Your task to perform on an android device: Check the news Image 0: 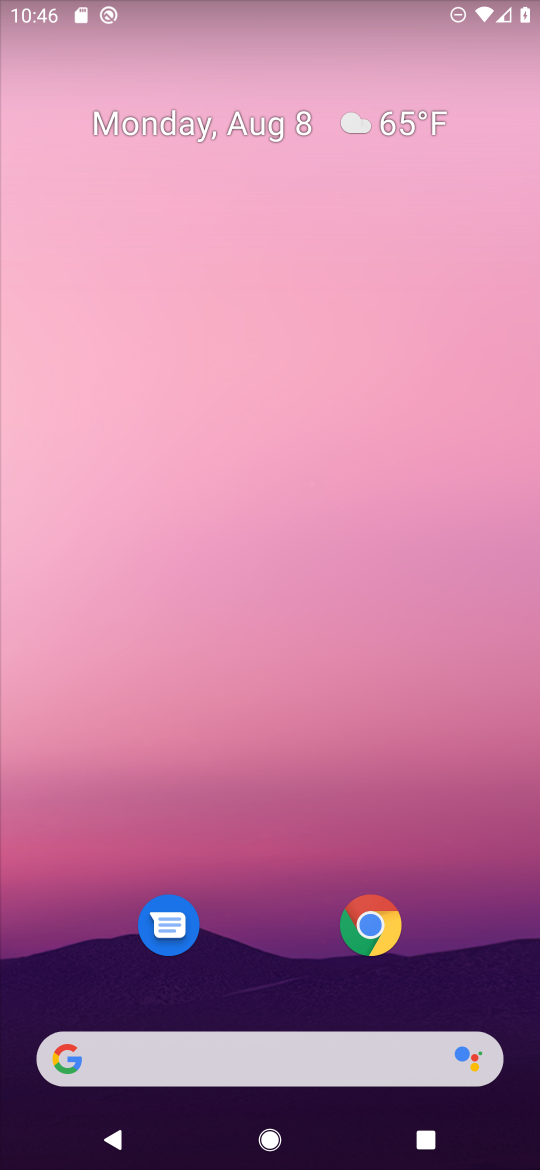
Step 0: drag from (226, 934) to (248, 259)
Your task to perform on an android device: Check the news Image 1: 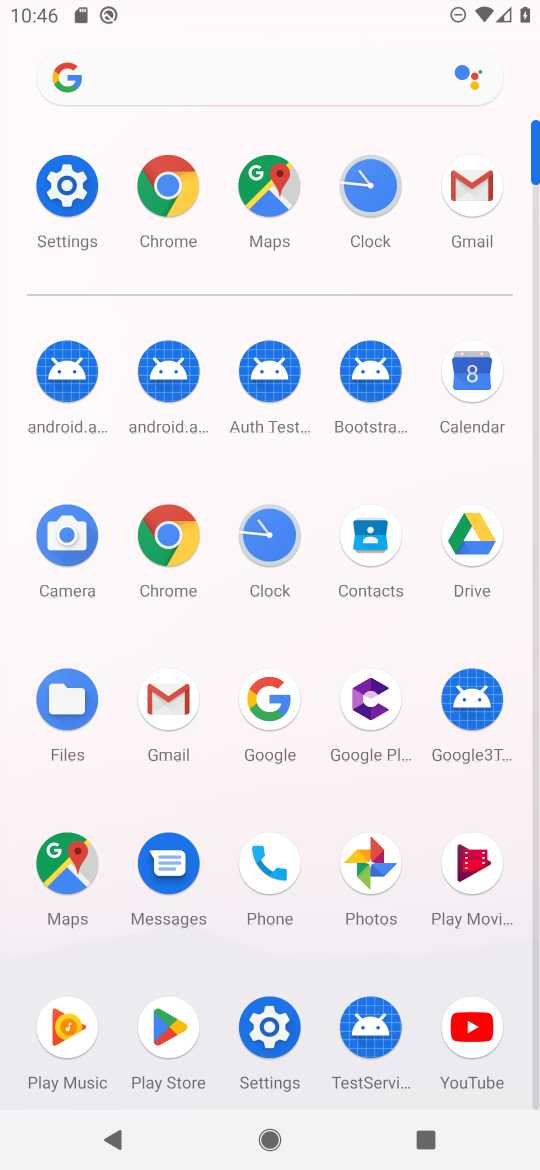
Step 1: click (171, 510)
Your task to perform on an android device: Check the news Image 2: 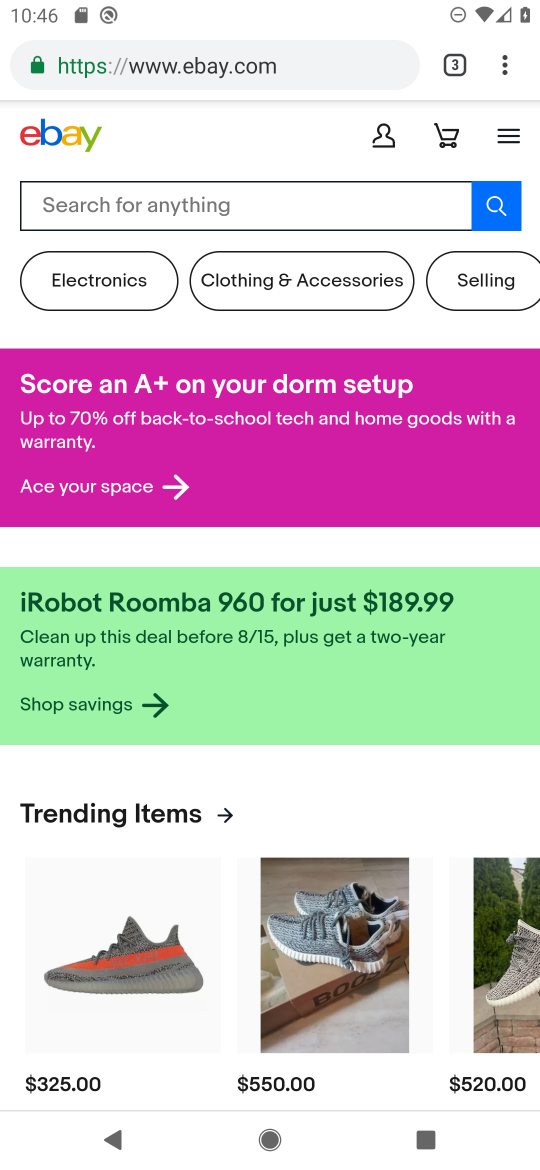
Step 2: click (223, 77)
Your task to perform on an android device: Check the news Image 3: 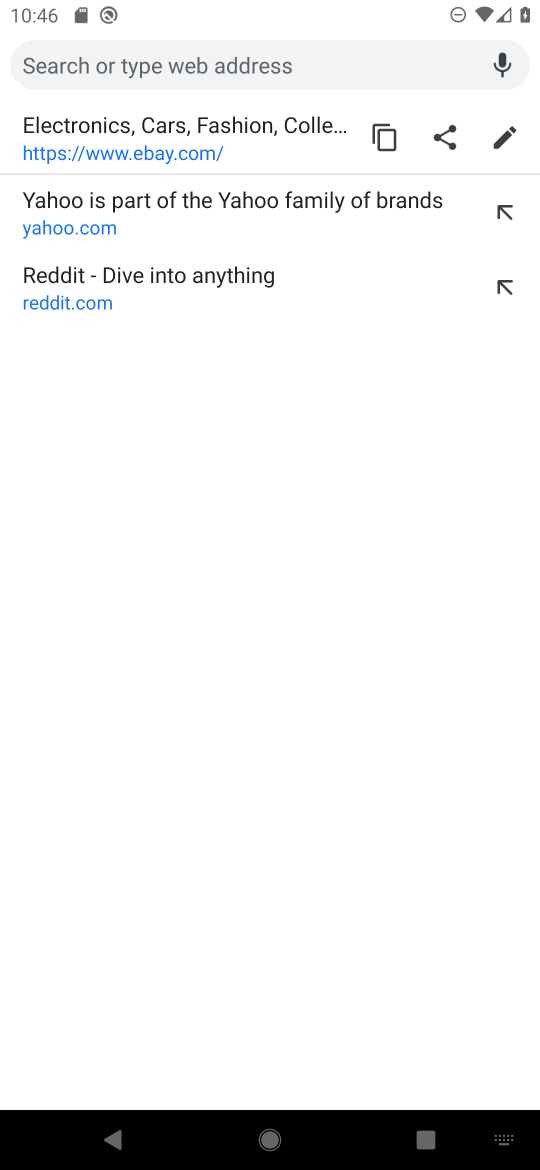
Step 3: type "news"
Your task to perform on an android device: Check the news Image 4: 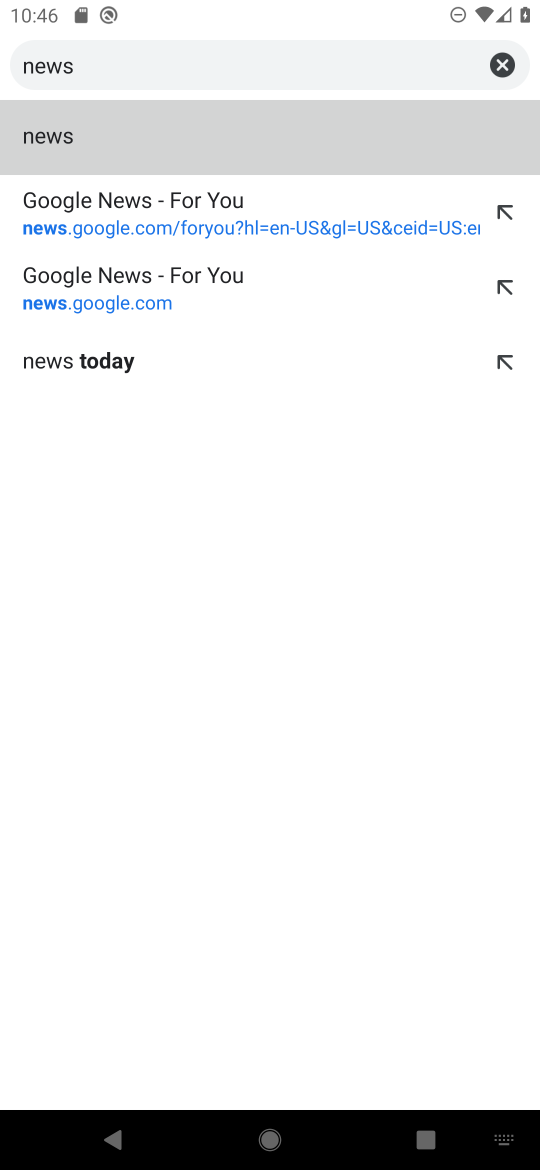
Step 4: click (92, 132)
Your task to perform on an android device: Check the news Image 5: 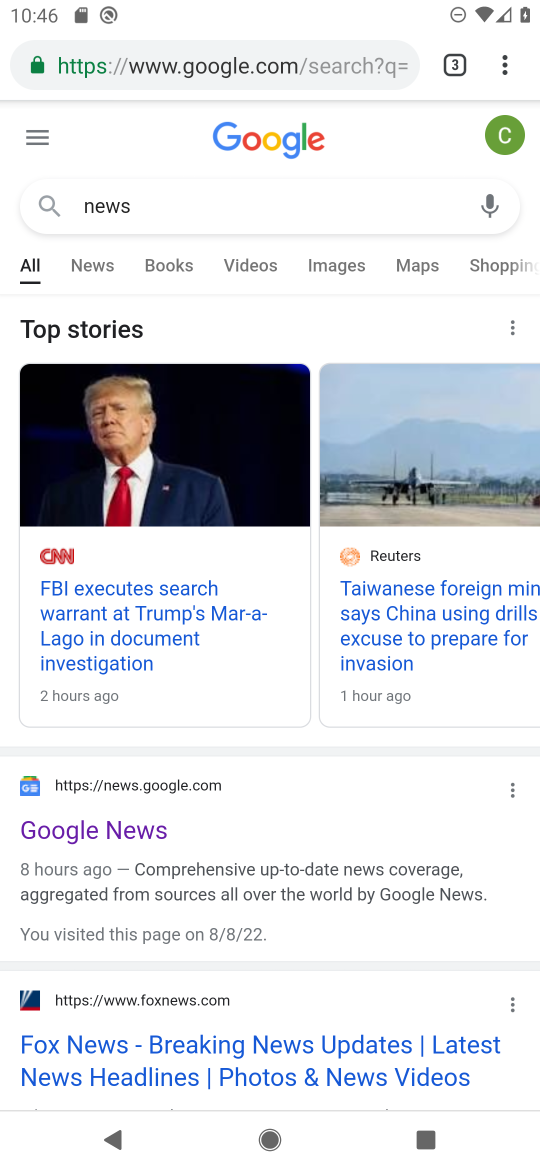
Step 5: click (125, 817)
Your task to perform on an android device: Check the news Image 6: 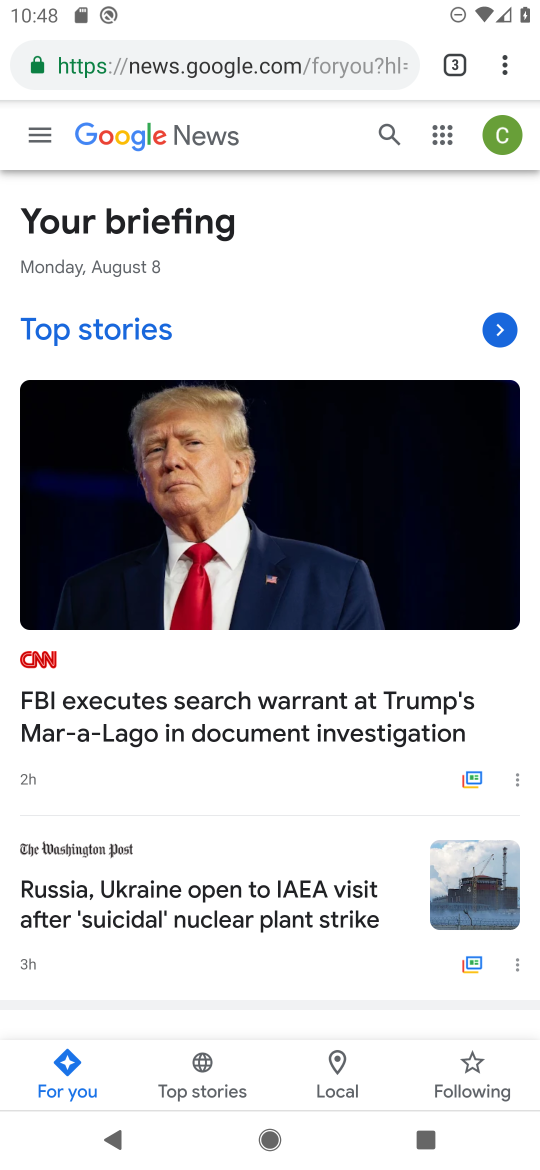
Step 6: task complete